Your task to perform on an android device: toggle data saver in the chrome app Image 0: 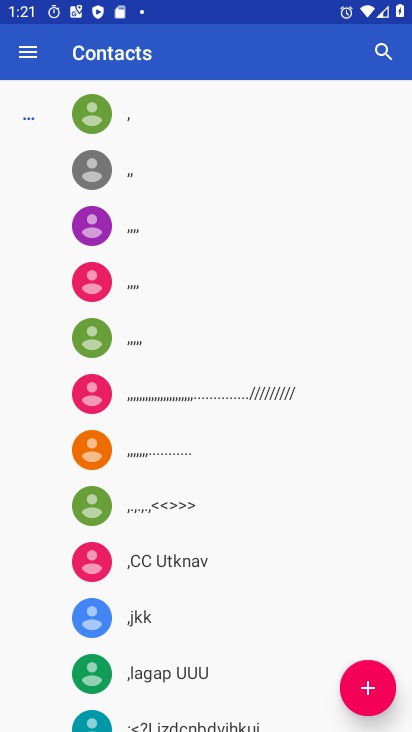
Step 0: press home button
Your task to perform on an android device: toggle data saver in the chrome app Image 1: 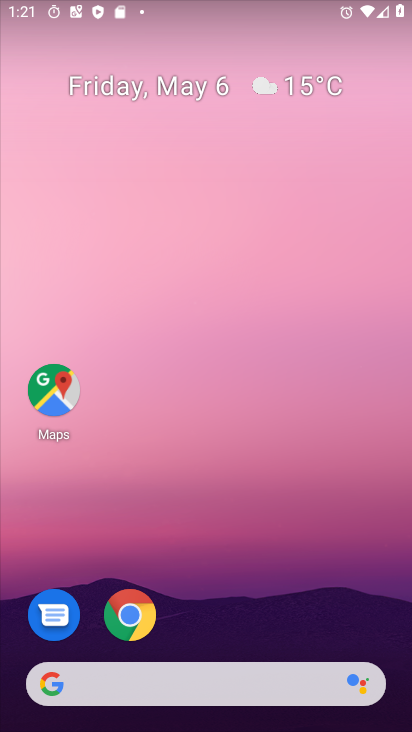
Step 1: drag from (290, 569) to (301, 23)
Your task to perform on an android device: toggle data saver in the chrome app Image 2: 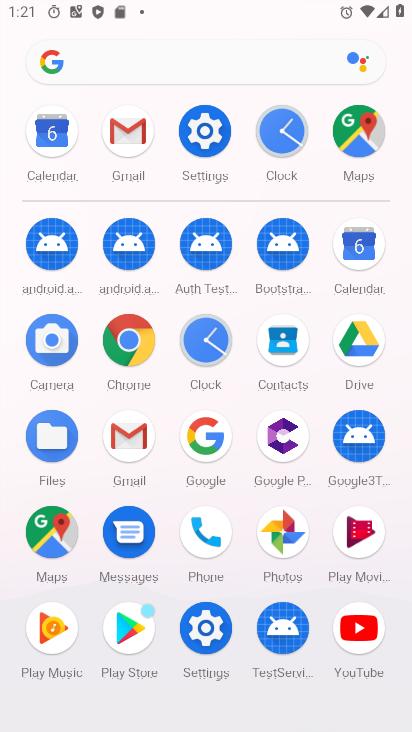
Step 2: click (129, 337)
Your task to perform on an android device: toggle data saver in the chrome app Image 3: 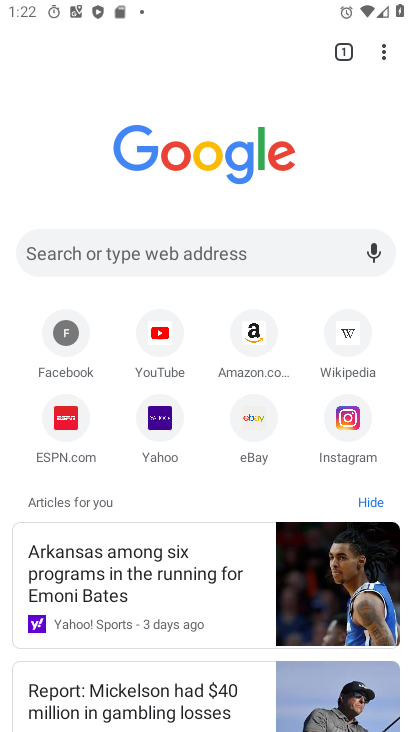
Step 3: click (381, 51)
Your task to perform on an android device: toggle data saver in the chrome app Image 4: 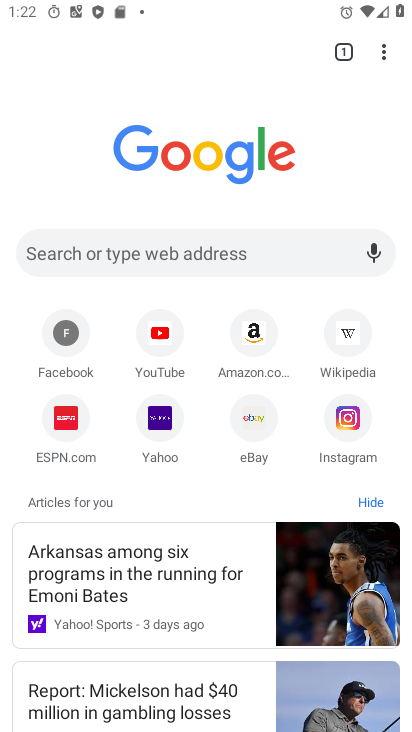
Step 4: drag from (381, 51) to (230, 424)
Your task to perform on an android device: toggle data saver in the chrome app Image 5: 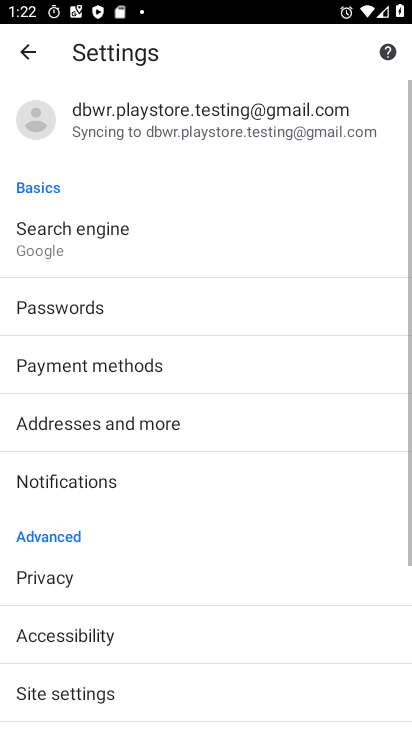
Step 5: drag from (193, 668) to (274, 227)
Your task to perform on an android device: toggle data saver in the chrome app Image 6: 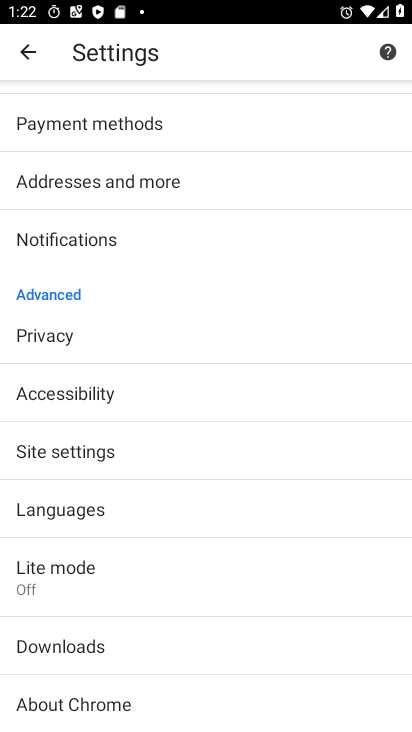
Step 6: click (146, 584)
Your task to perform on an android device: toggle data saver in the chrome app Image 7: 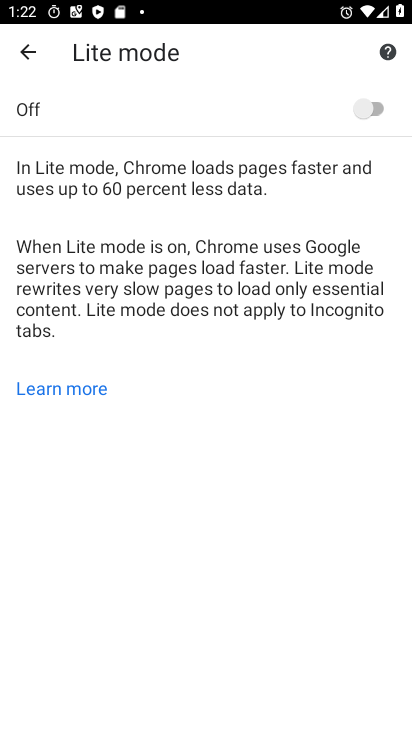
Step 7: click (373, 107)
Your task to perform on an android device: toggle data saver in the chrome app Image 8: 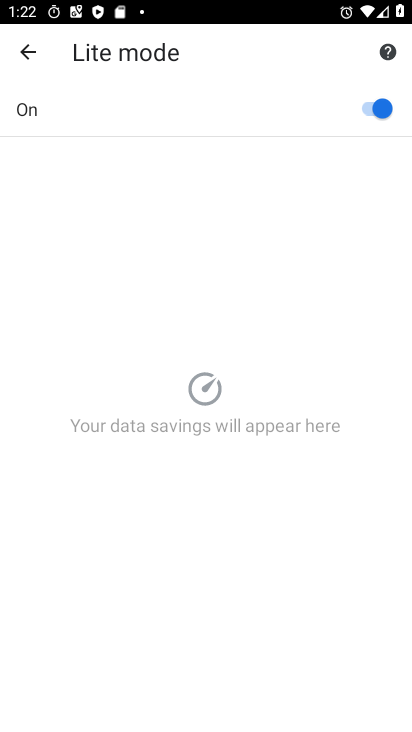
Step 8: task complete